Your task to perform on an android device: uninstall "Pandora - Music & Podcasts" Image 0: 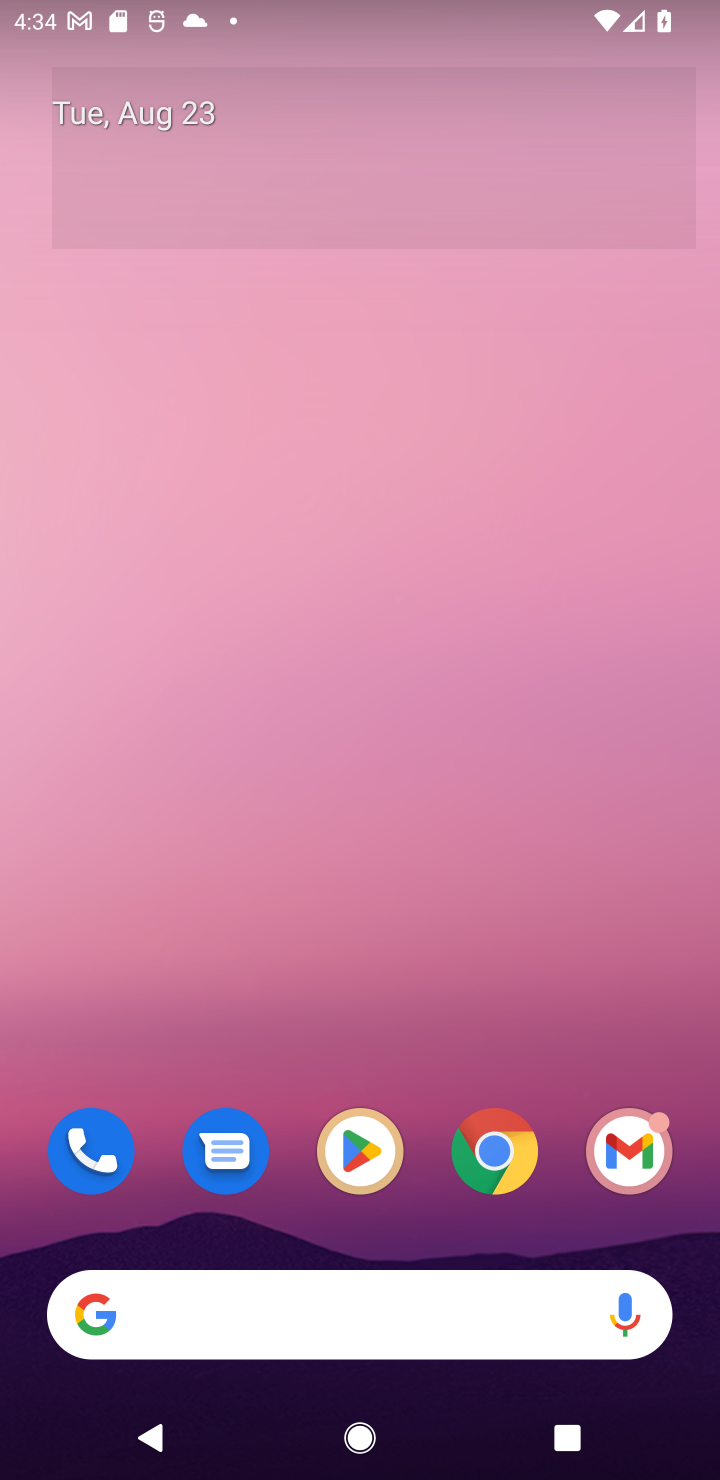
Step 0: click (364, 1149)
Your task to perform on an android device: uninstall "Pandora - Music & Podcasts" Image 1: 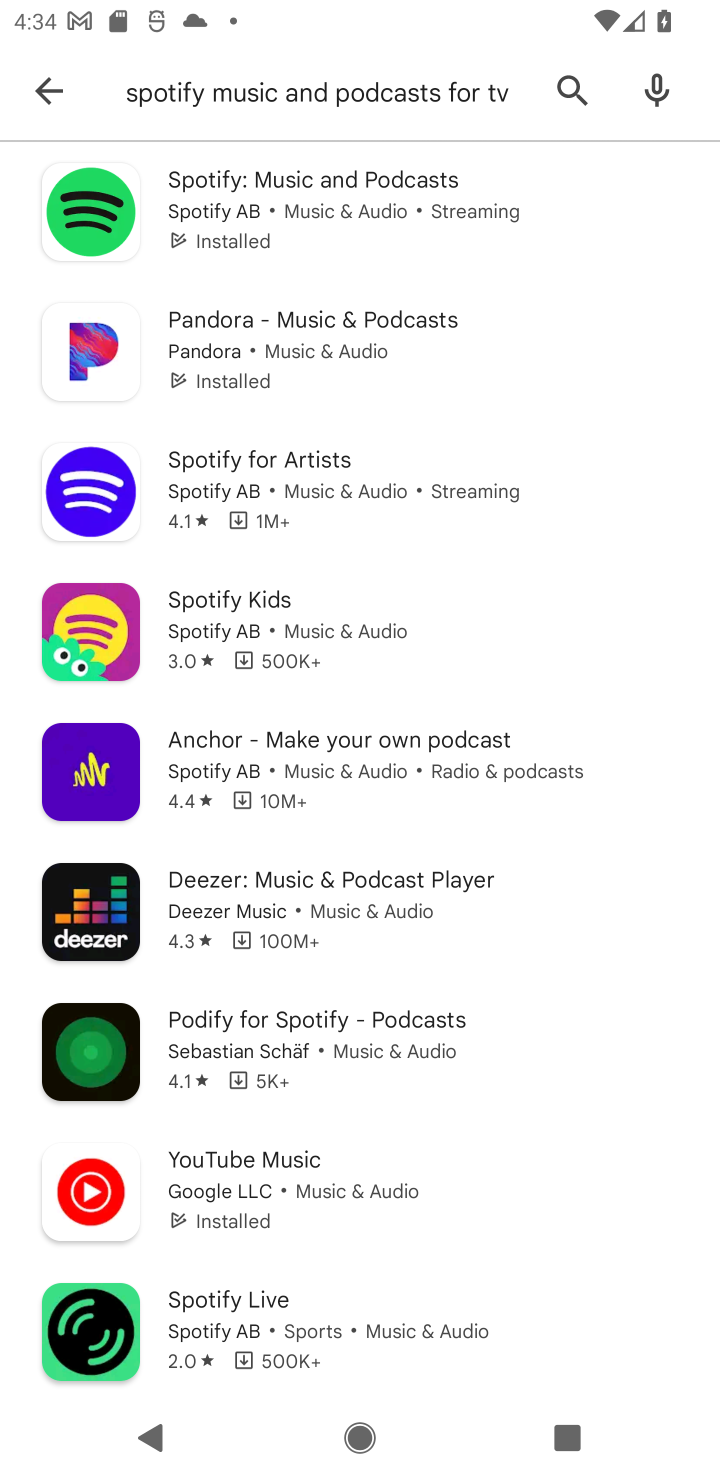
Step 1: click (560, 93)
Your task to perform on an android device: uninstall "Pandora - Music & Podcasts" Image 2: 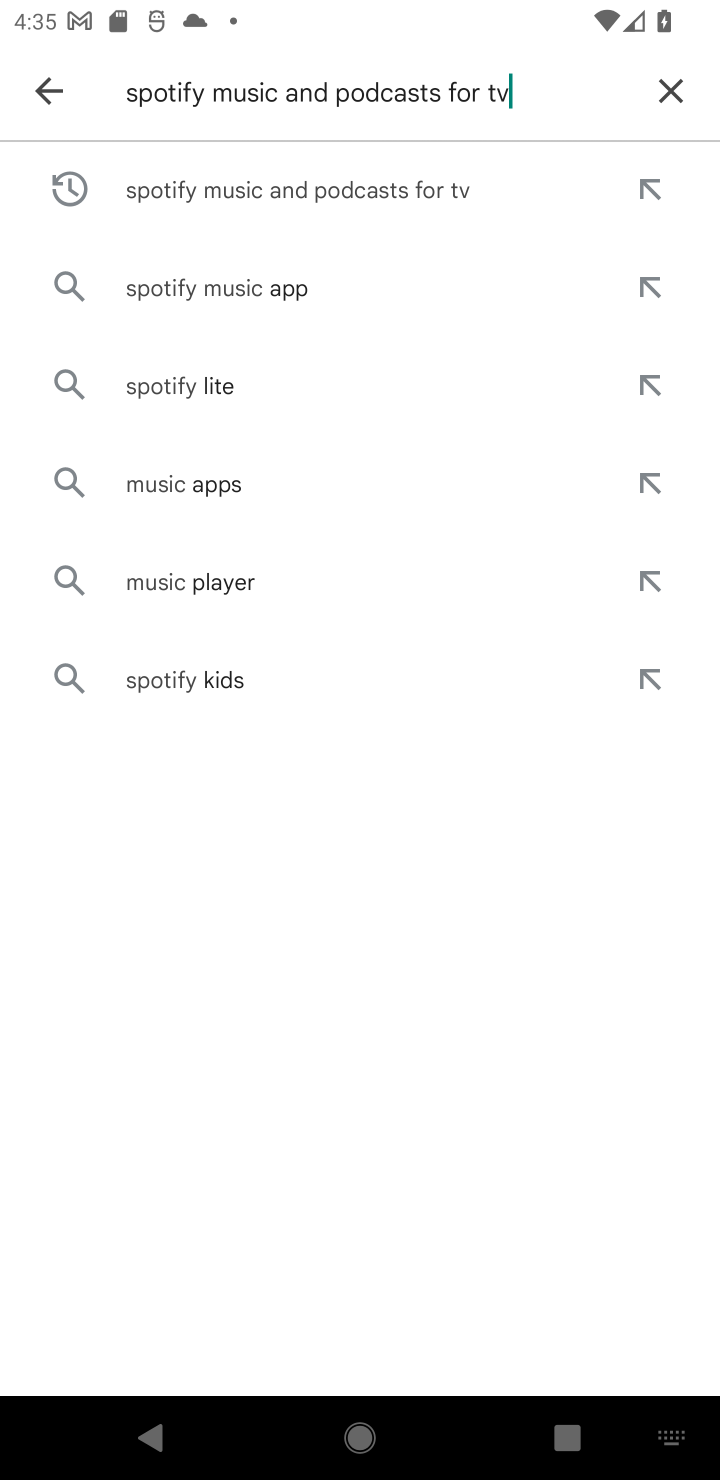
Step 2: click (674, 92)
Your task to perform on an android device: uninstall "Pandora - Music & Podcasts" Image 3: 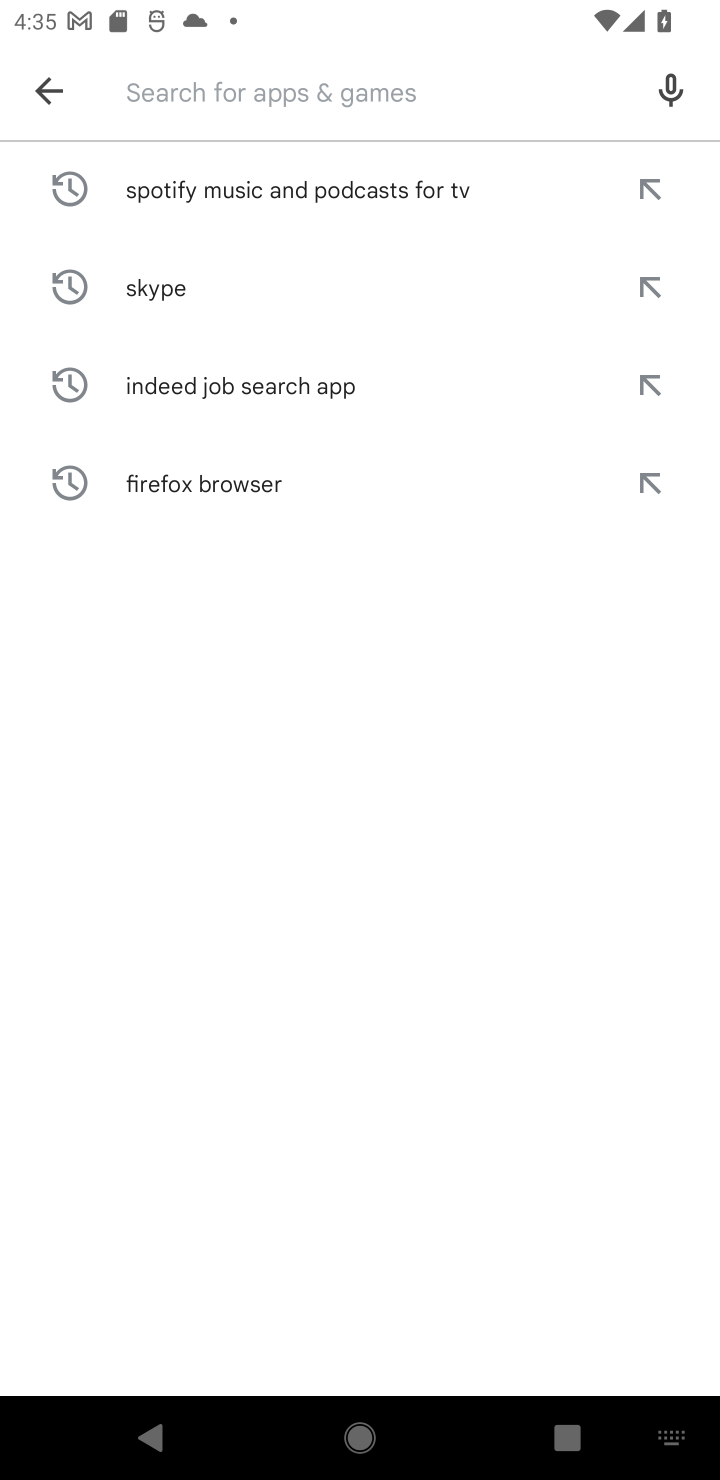
Step 3: type "Pandora - Music & Podcasts"
Your task to perform on an android device: uninstall "Pandora - Music & Podcasts" Image 4: 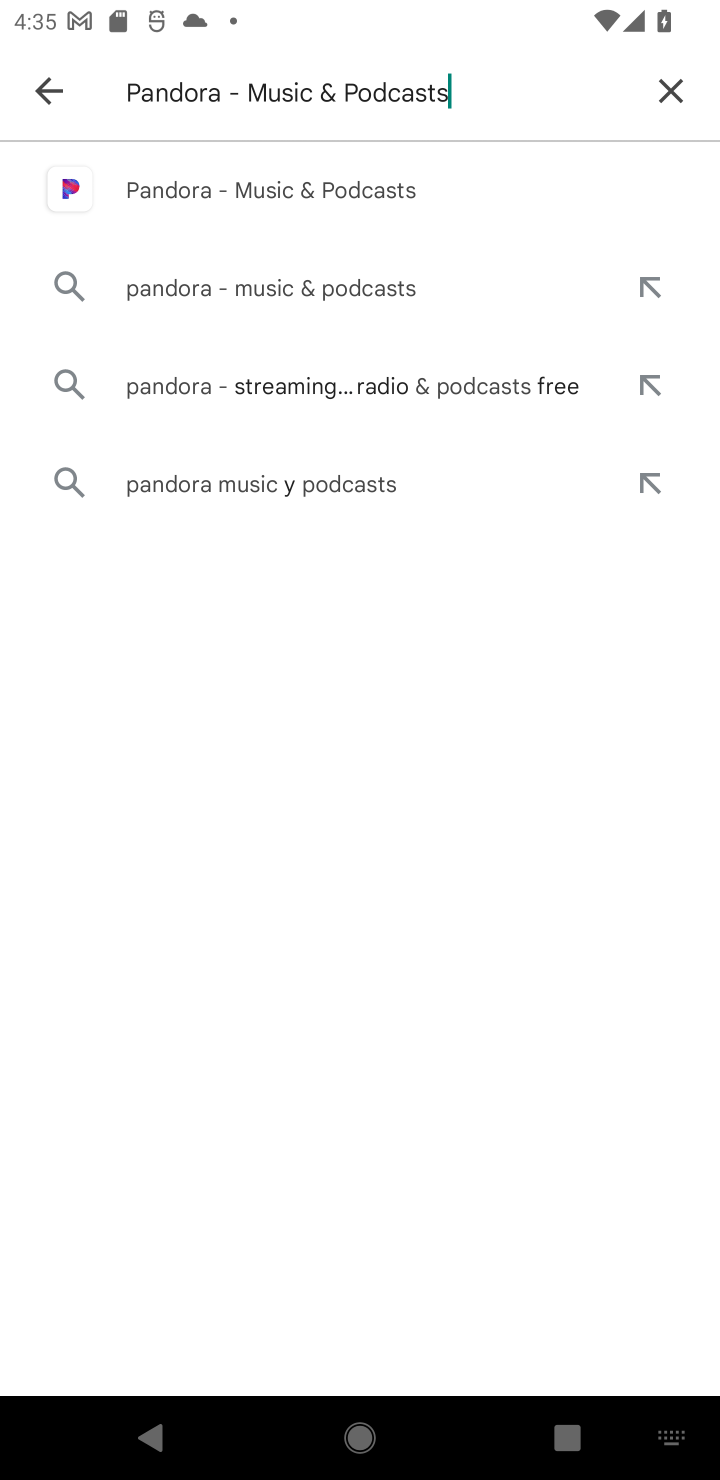
Step 4: click (284, 195)
Your task to perform on an android device: uninstall "Pandora - Music & Podcasts" Image 5: 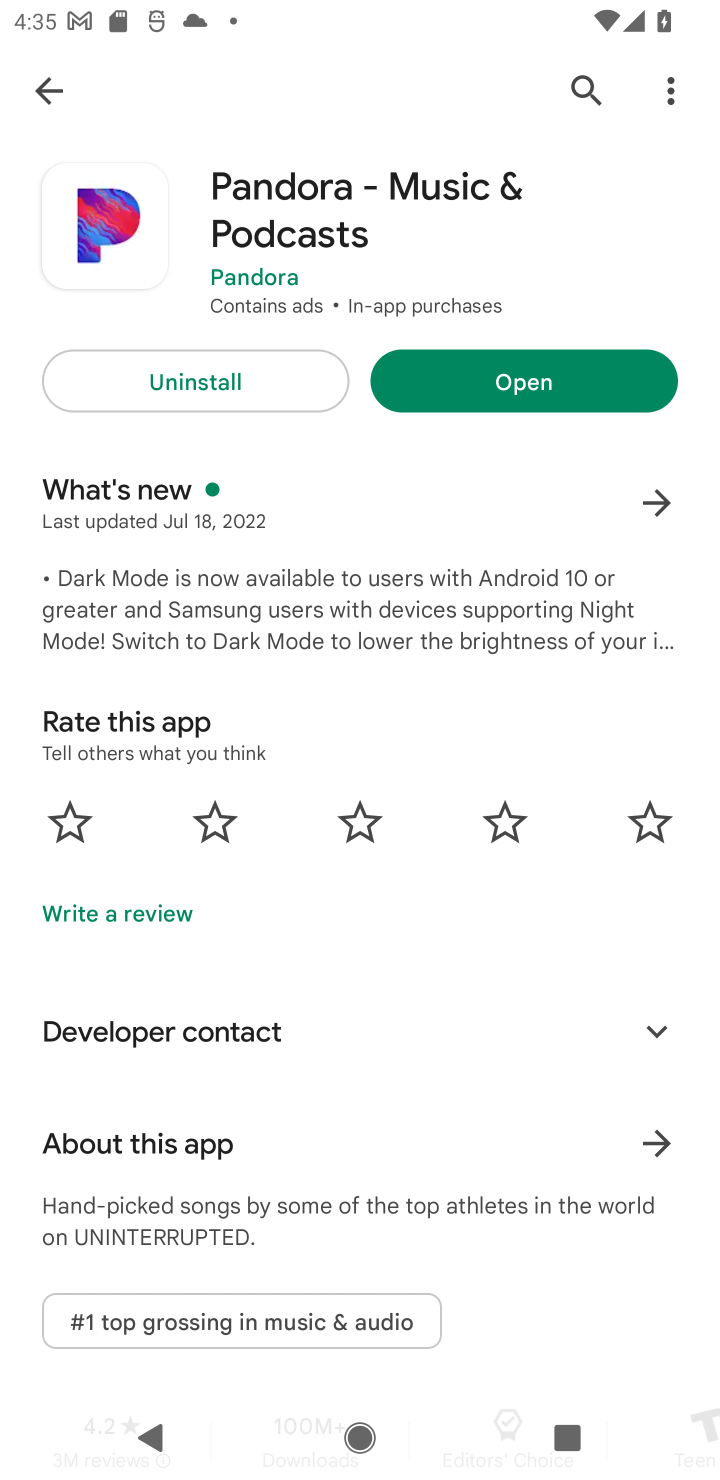
Step 5: click (157, 390)
Your task to perform on an android device: uninstall "Pandora - Music & Podcasts" Image 6: 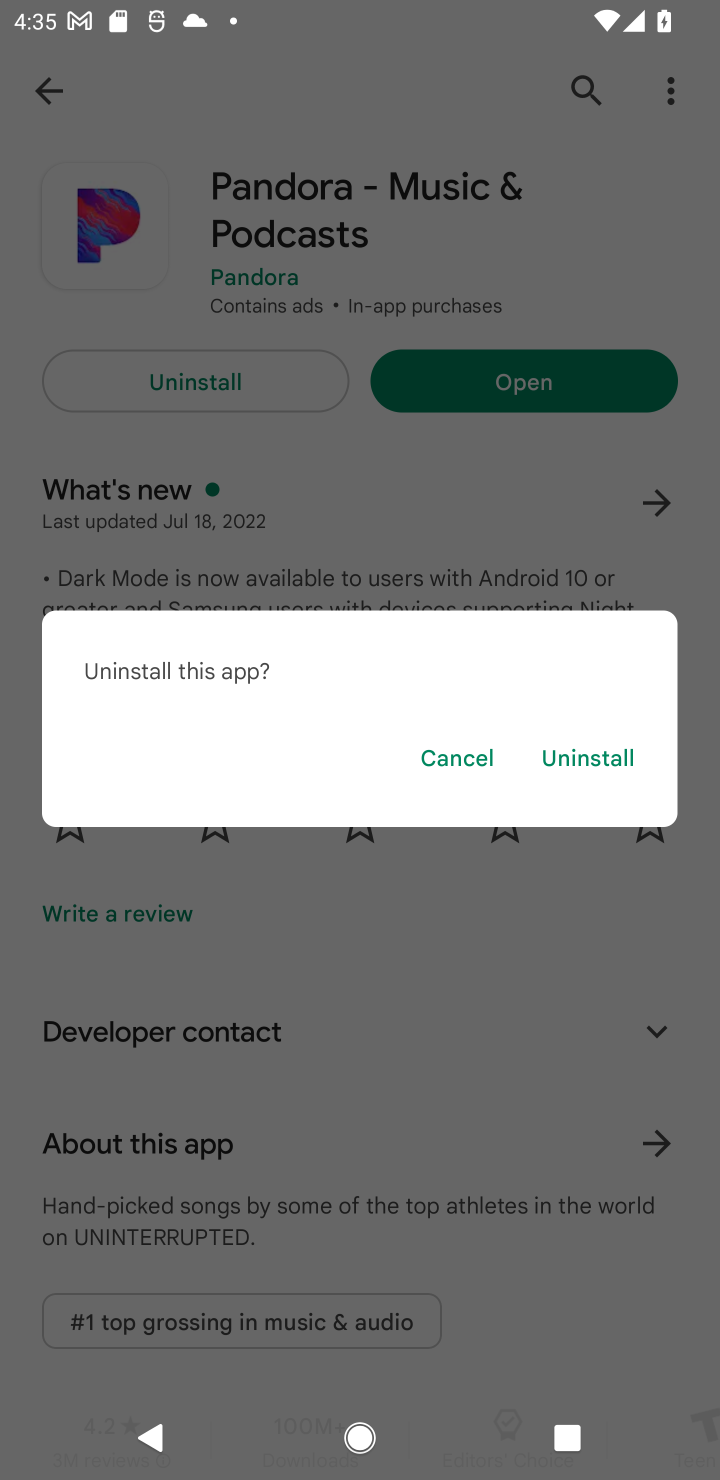
Step 6: click (583, 760)
Your task to perform on an android device: uninstall "Pandora - Music & Podcasts" Image 7: 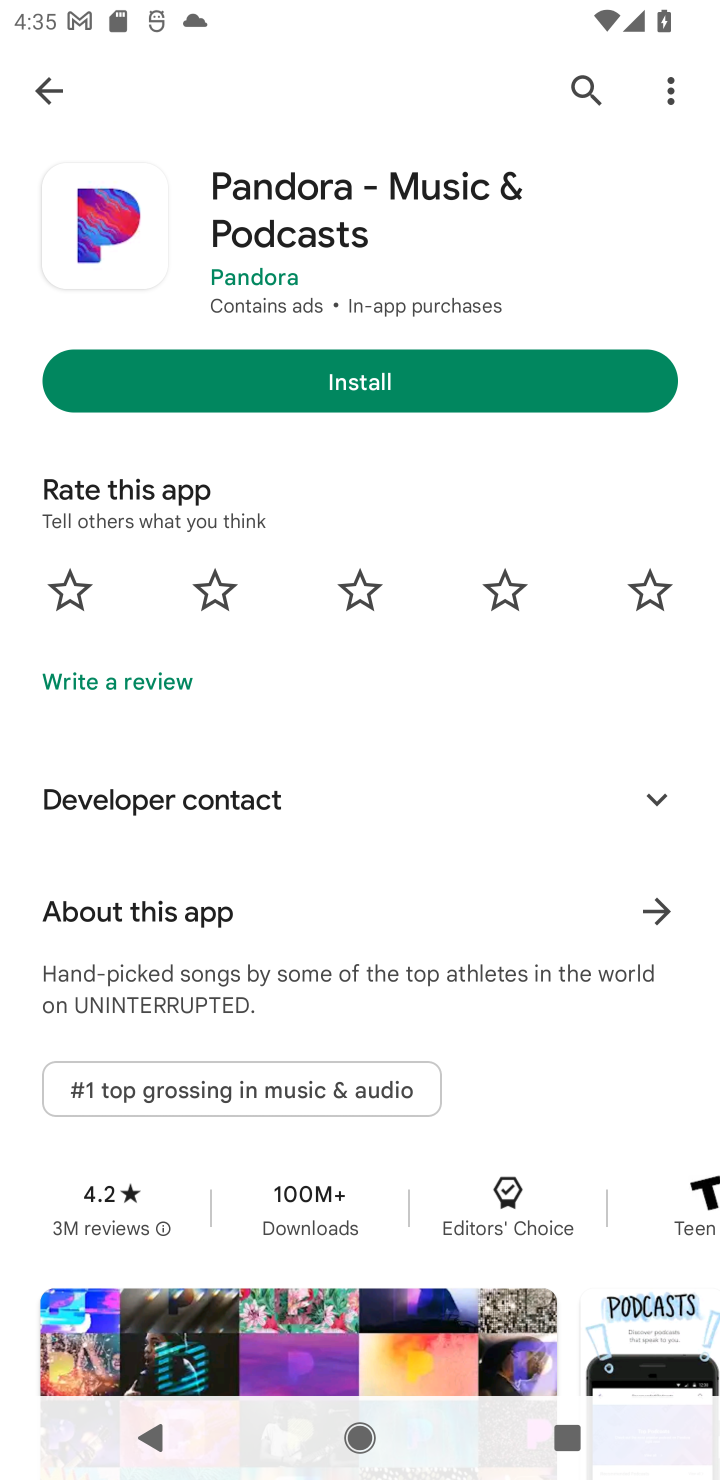
Step 7: task complete